Your task to perform on an android device: Open the phone app and click the voicemail tab. Image 0: 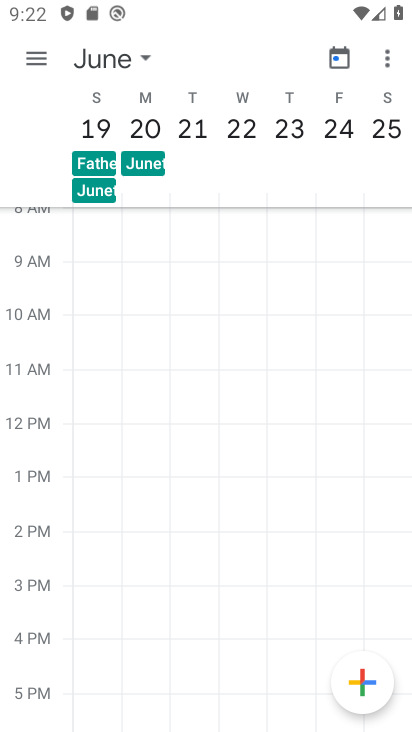
Step 0: press back button
Your task to perform on an android device: Open the phone app and click the voicemail tab. Image 1: 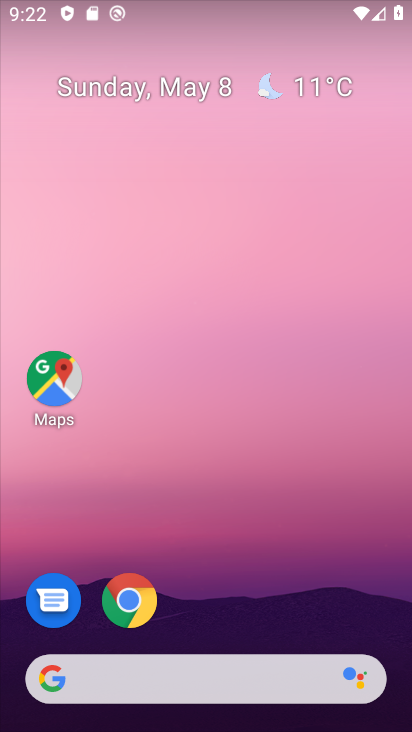
Step 1: drag from (272, 464) to (287, 87)
Your task to perform on an android device: Open the phone app and click the voicemail tab. Image 2: 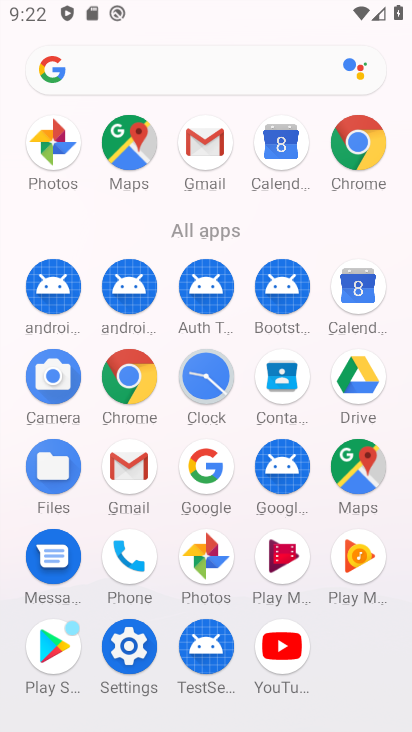
Step 2: drag from (10, 573) to (13, 267)
Your task to perform on an android device: Open the phone app and click the voicemail tab. Image 3: 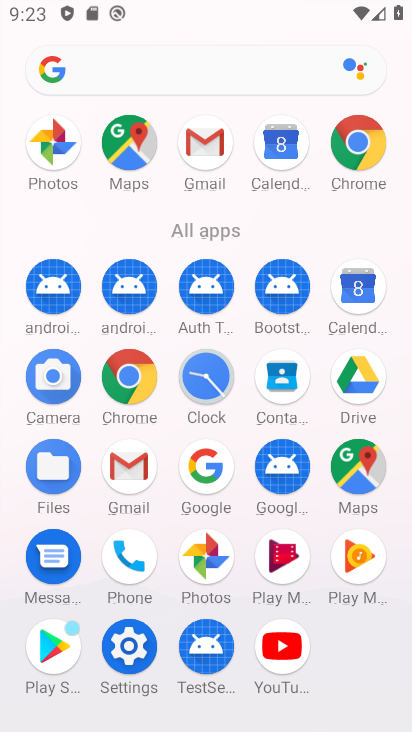
Step 3: click (128, 552)
Your task to perform on an android device: Open the phone app and click the voicemail tab. Image 4: 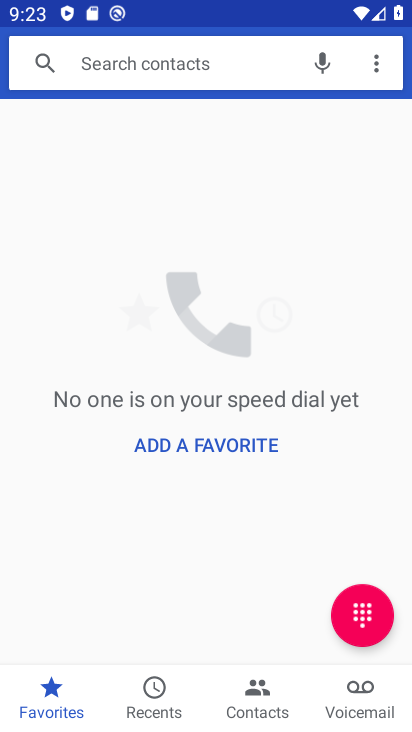
Step 4: click (347, 683)
Your task to perform on an android device: Open the phone app and click the voicemail tab. Image 5: 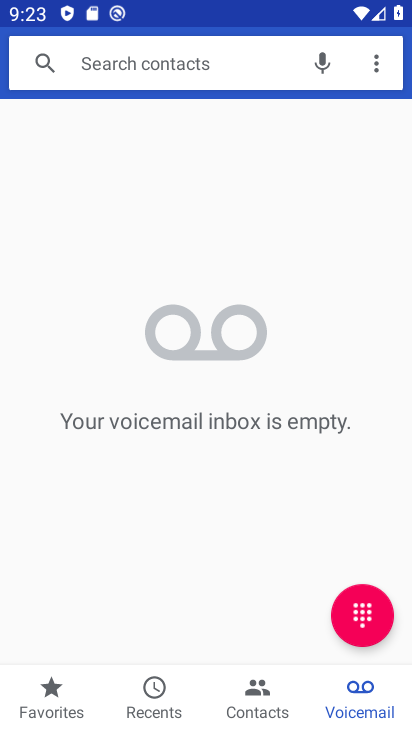
Step 5: task complete